Your task to perform on an android device: install app "DoorDash - Dasher" Image 0: 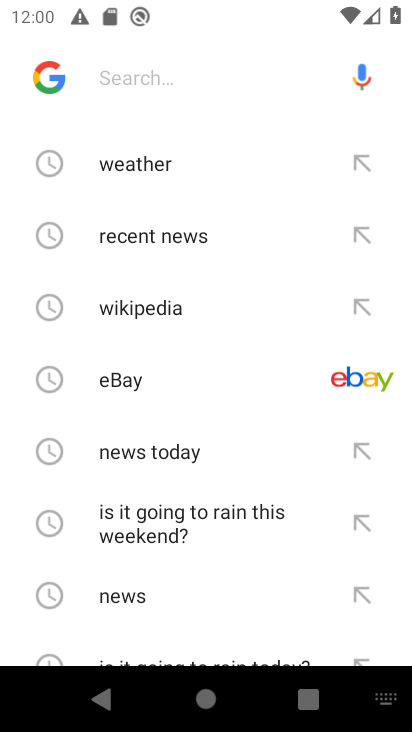
Step 0: press home button
Your task to perform on an android device: install app "DoorDash - Dasher" Image 1: 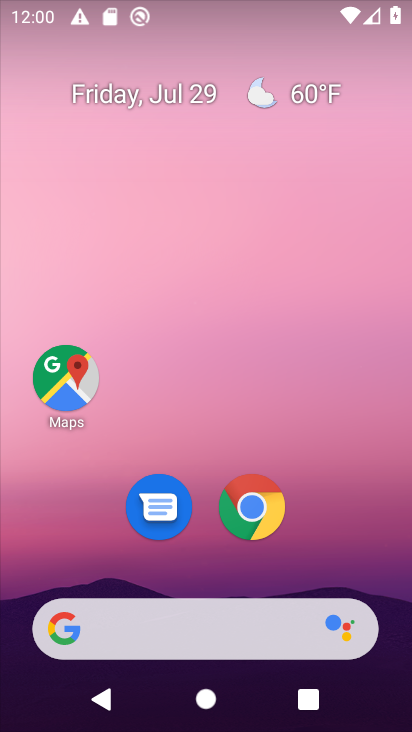
Step 1: drag from (217, 544) to (251, 3)
Your task to perform on an android device: install app "DoorDash - Dasher" Image 2: 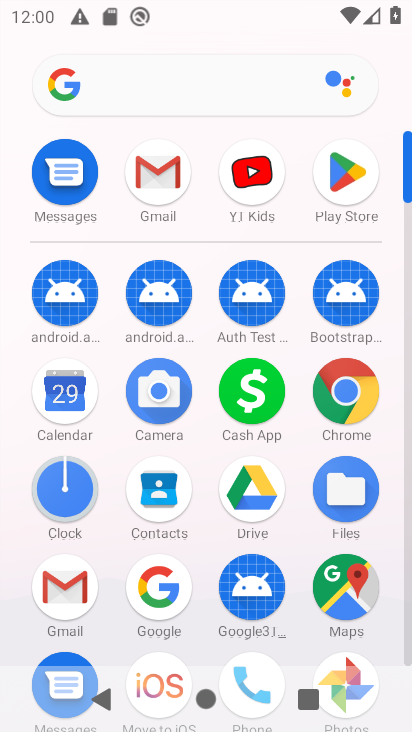
Step 2: click (357, 189)
Your task to perform on an android device: install app "DoorDash - Dasher" Image 3: 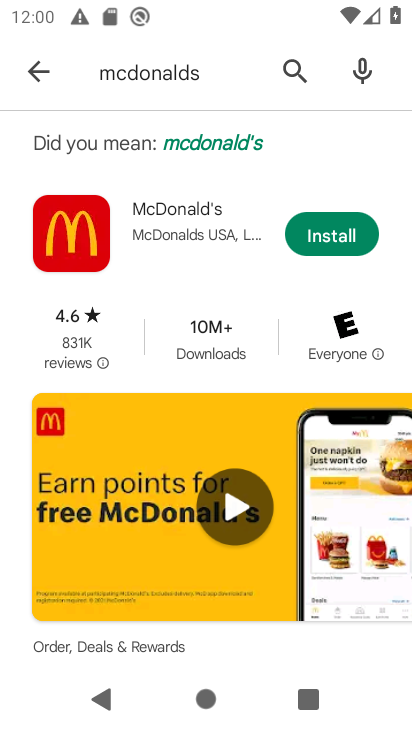
Step 3: click (188, 74)
Your task to perform on an android device: install app "DoorDash - Dasher" Image 4: 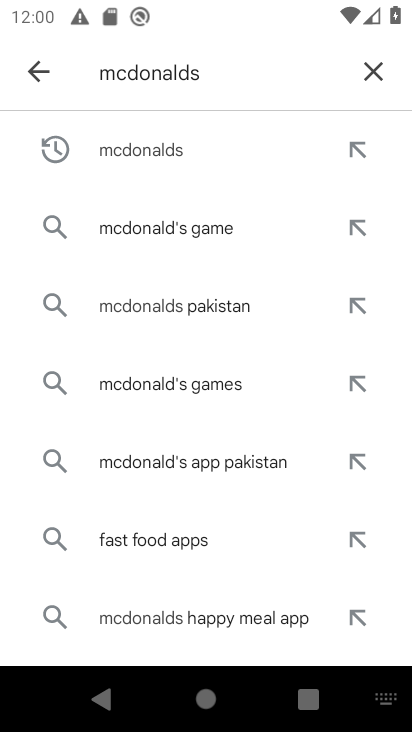
Step 4: click (378, 81)
Your task to perform on an android device: install app "DoorDash - Dasher" Image 5: 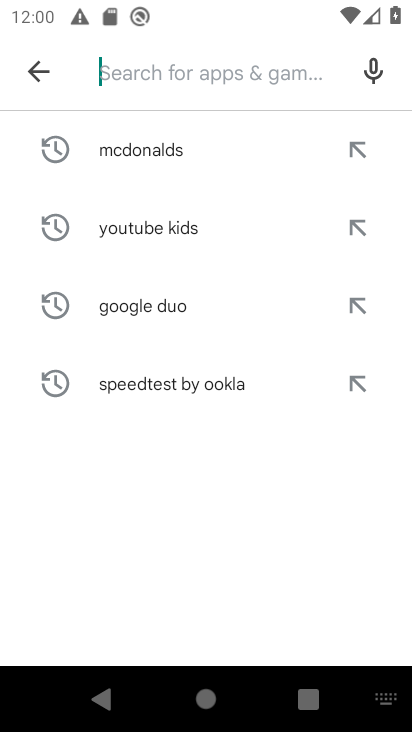
Step 5: type "DoorDash"
Your task to perform on an android device: install app "DoorDash - Dasher" Image 6: 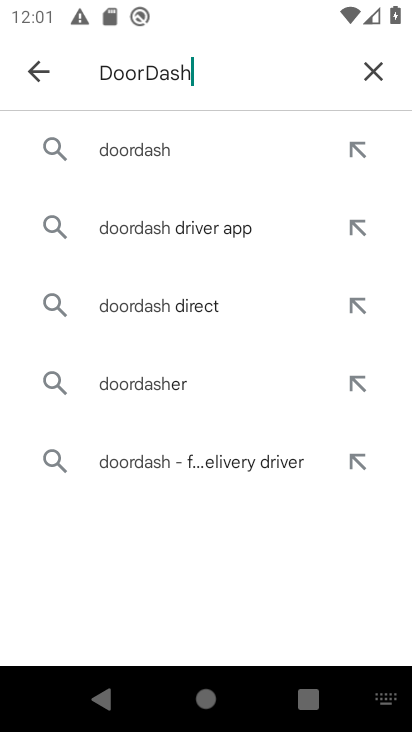
Step 6: click (186, 159)
Your task to perform on an android device: install app "DoorDash - Dasher" Image 7: 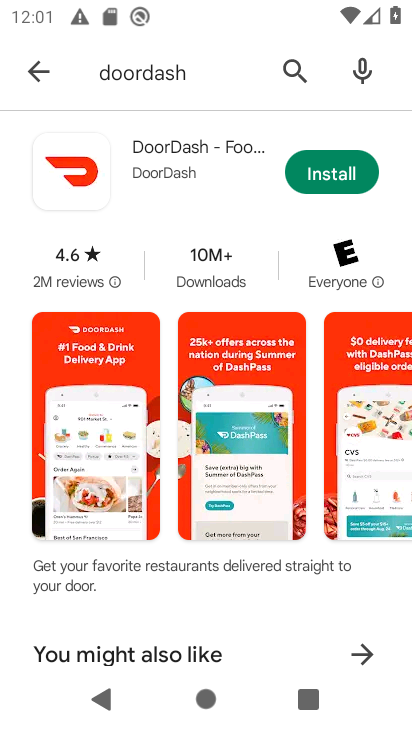
Step 7: click (335, 173)
Your task to perform on an android device: install app "DoorDash - Dasher" Image 8: 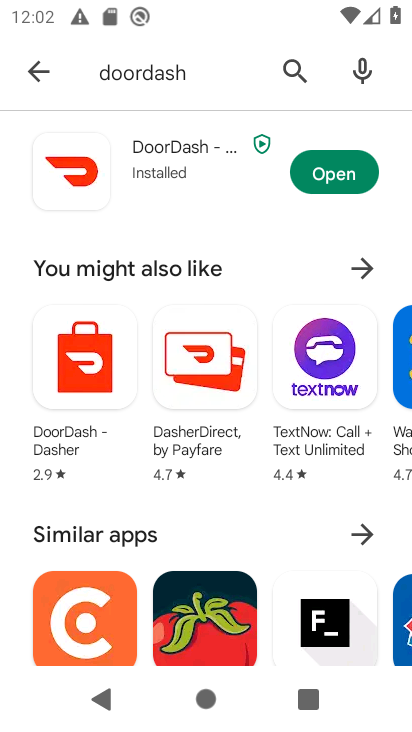
Step 8: task complete